Your task to perform on an android device: find snoozed emails in the gmail app Image 0: 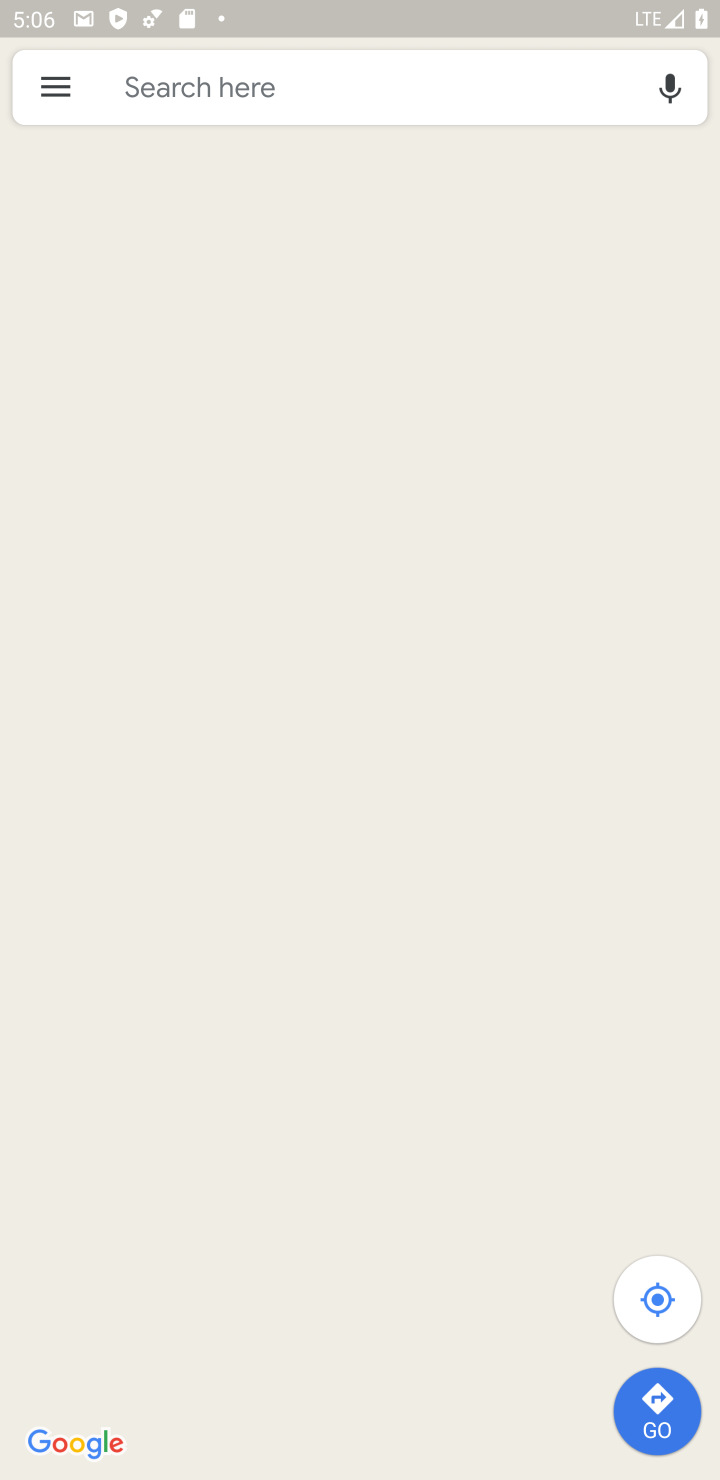
Step 0: press home button
Your task to perform on an android device: find snoozed emails in the gmail app Image 1: 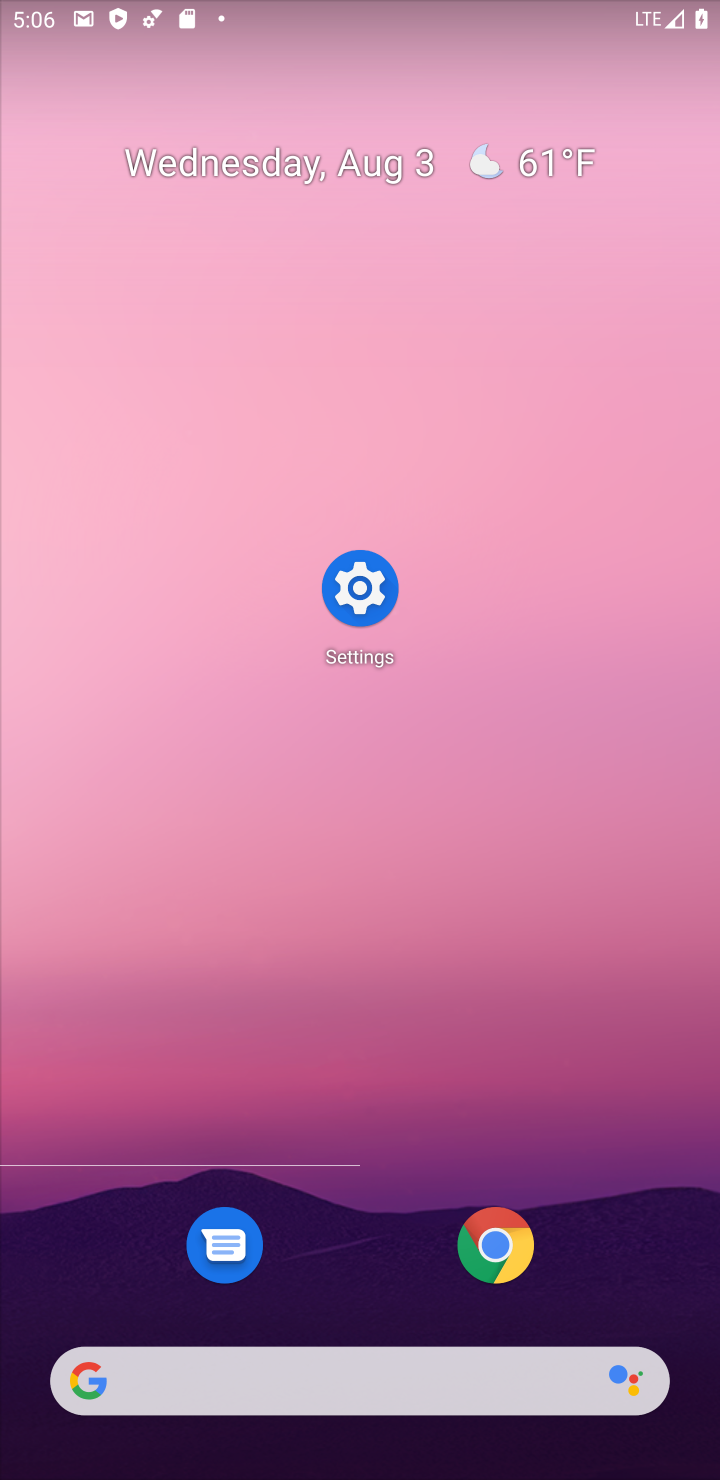
Step 1: drag from (352, 942) to (324, 222)
Your task to perform on an android device: find snoozed emails in the gmail app Image 2: 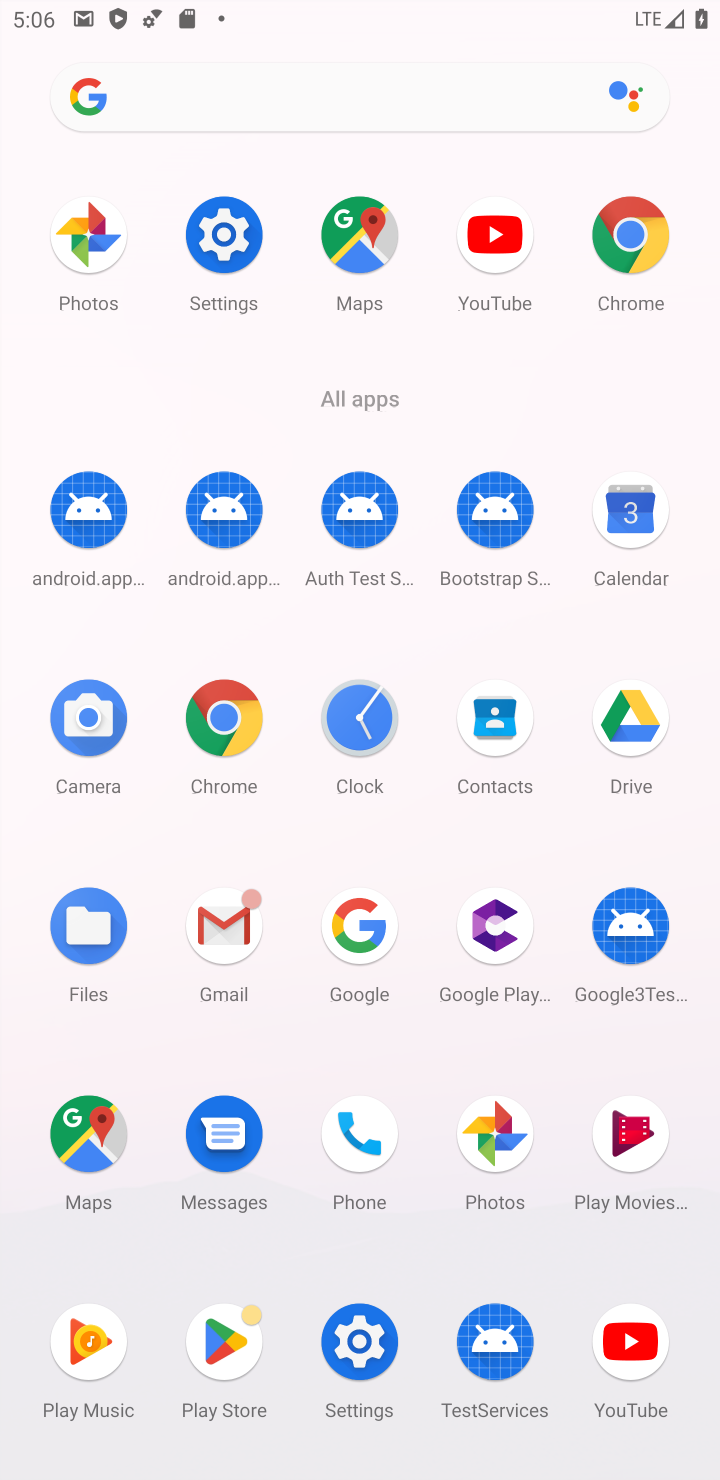
Step 2: click (239, 911)
Your task to perform on an android device: find snoozed emails in the gmail app Image 3: 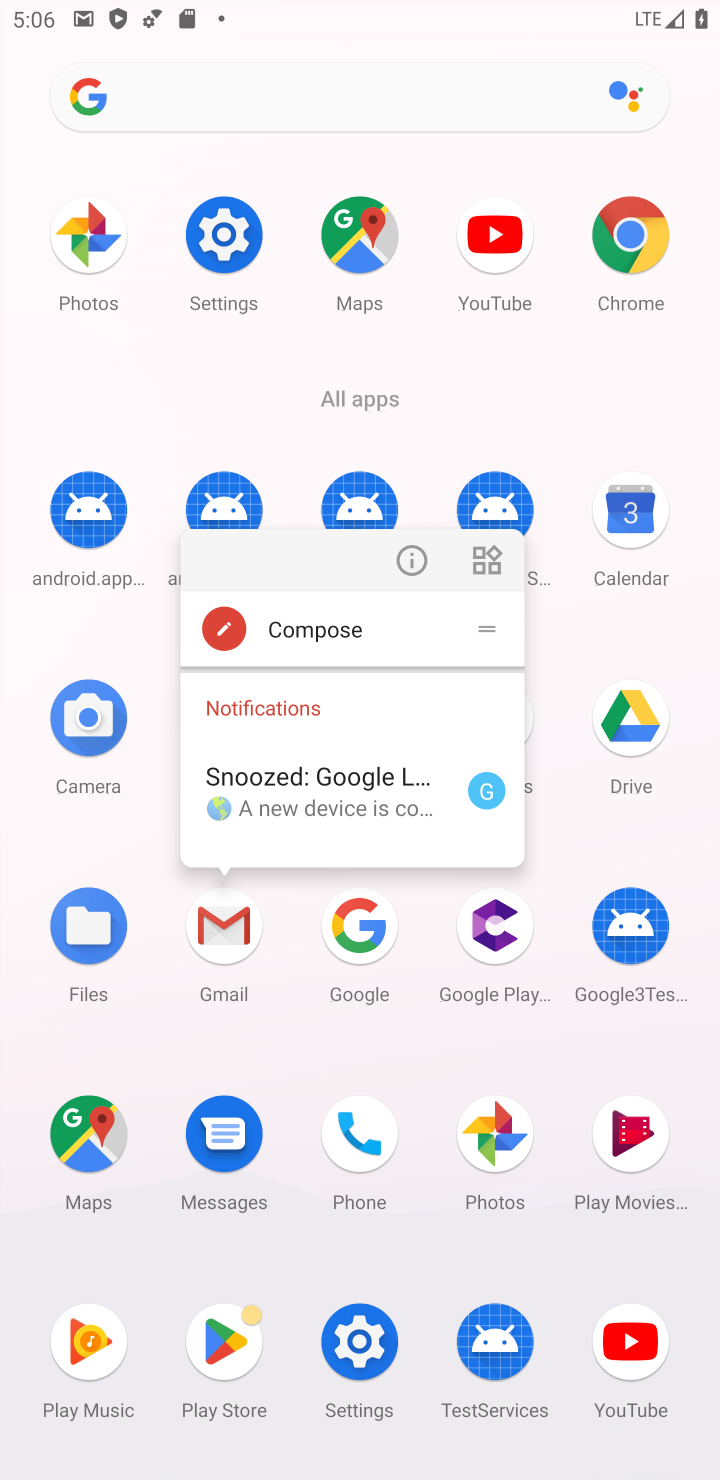
Step 3: click (239, 911)
Your task to perform on an android device: find snoozed emails in the gmail app Image 4: 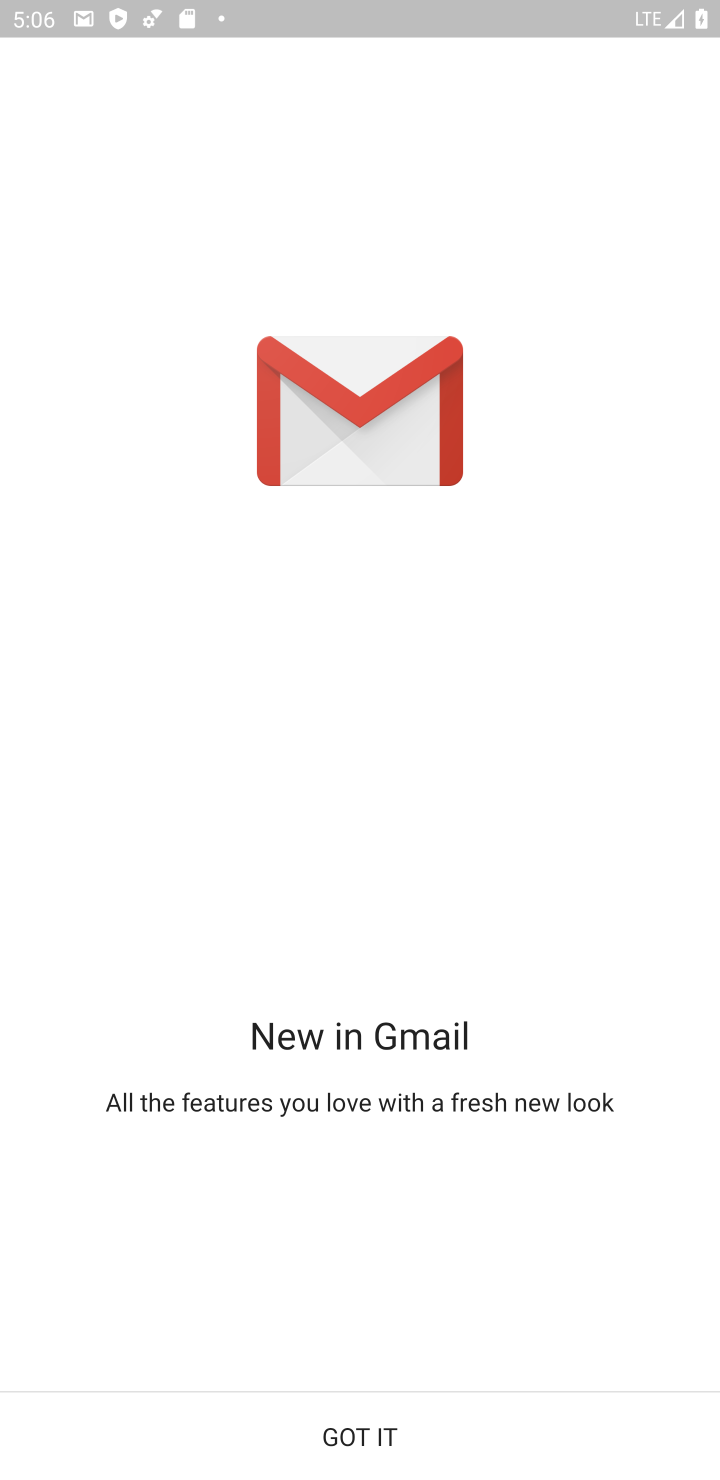
Step 4: click (333, 1442)
Your task to perform on an android device: find snoozed emails in the gmail app Image 5: 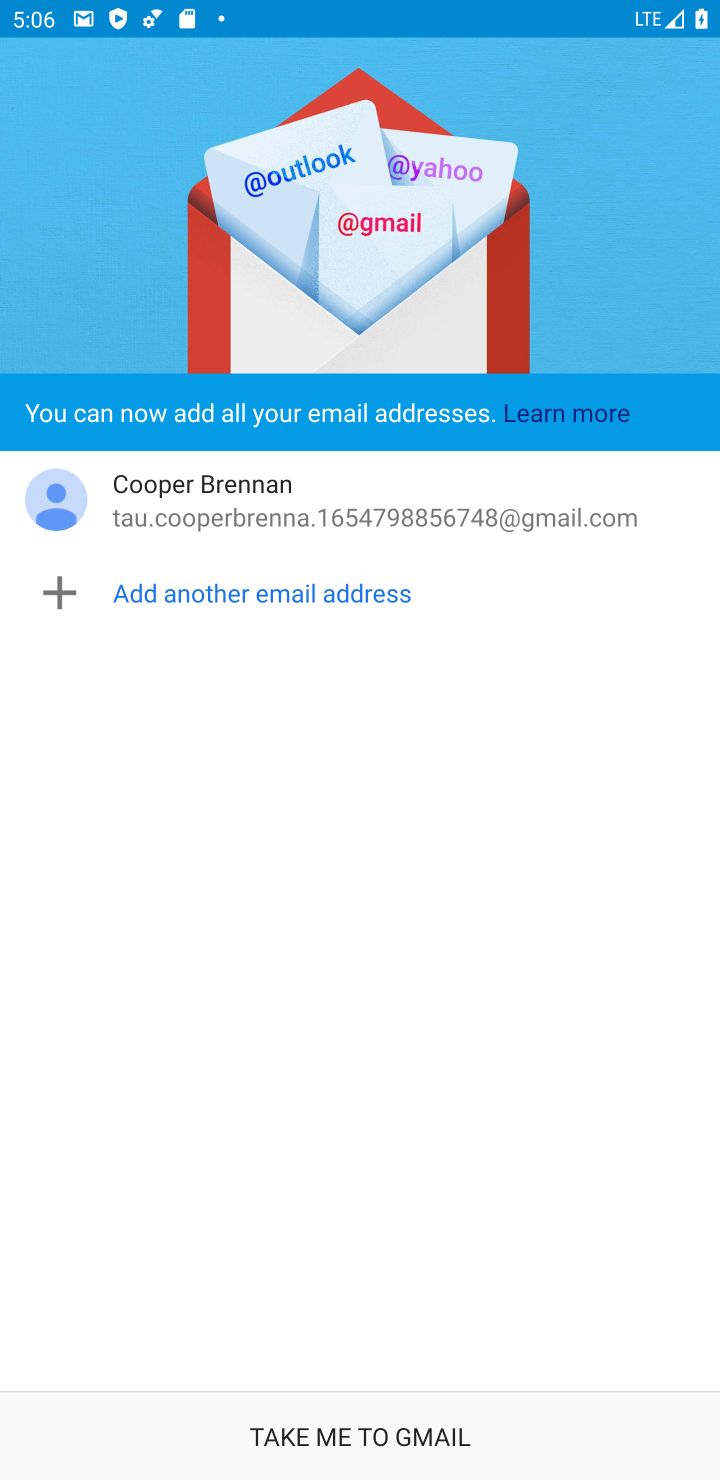
Step 5: click (318, 1416)
Your task to perform on an android device: find snoozed emails in the gmail app Image 6: 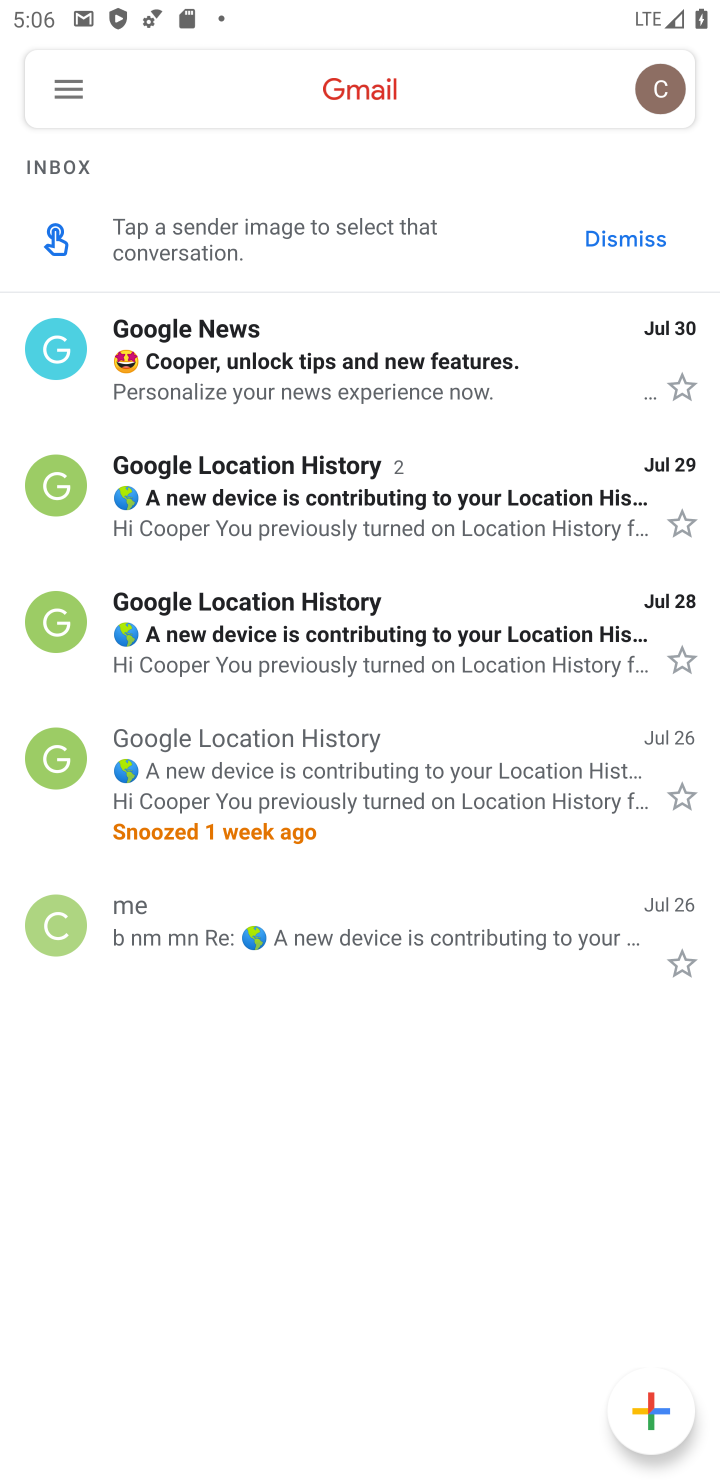
Step 6: click (62, 89)
Your task to perform on an android device: find snoozed emails in the gmail app Image 7: 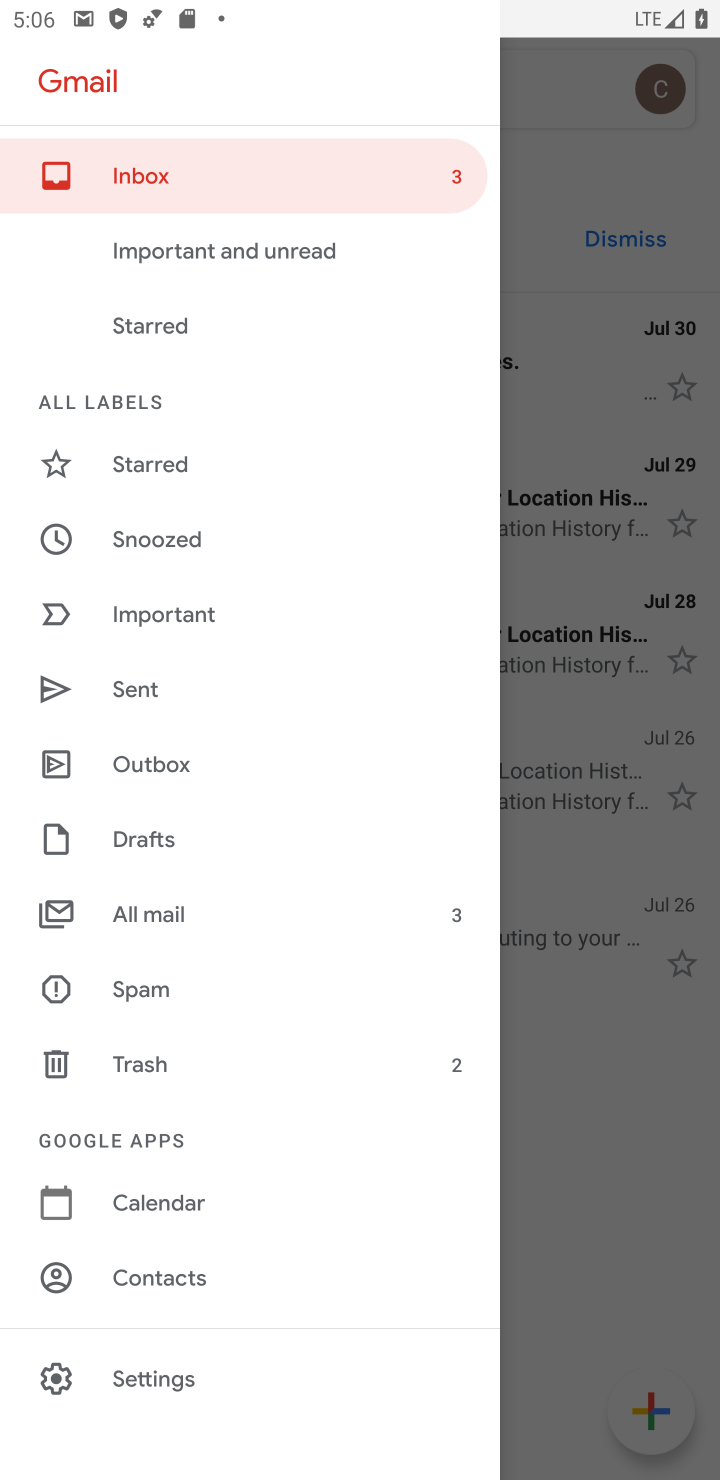
Step 7: click (120, 542)
Your task to perform on an android device: find snoozed emails in the gmail app Image 8: 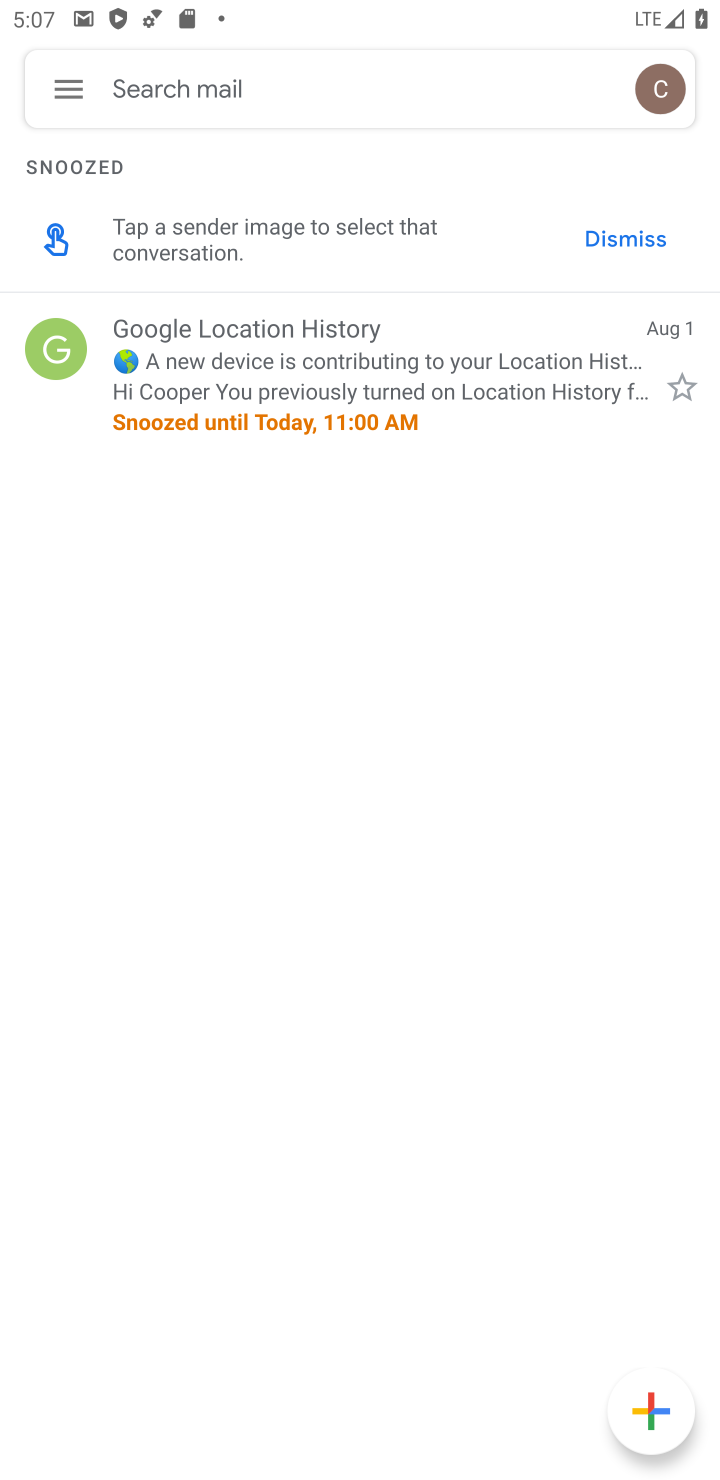
Step 8: task complete